Your task to perform on an android device: Go to ESPN.com Image 0: 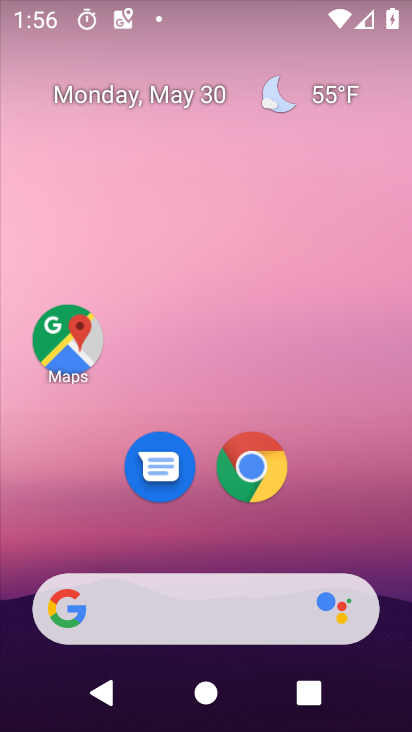
Step 0: drag from (218, 730) to (370, 531)
Your task to perform on an android device: Go to ESPN.com Image 1: 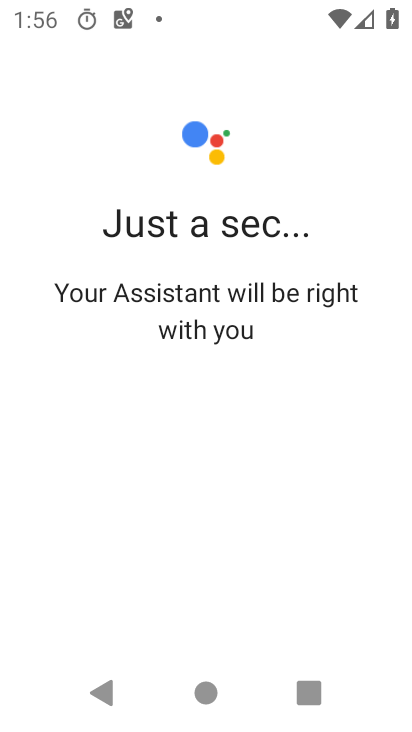
Step 1: press back button
Your task to perform on an android device: Go to ESPN.com Image 2: 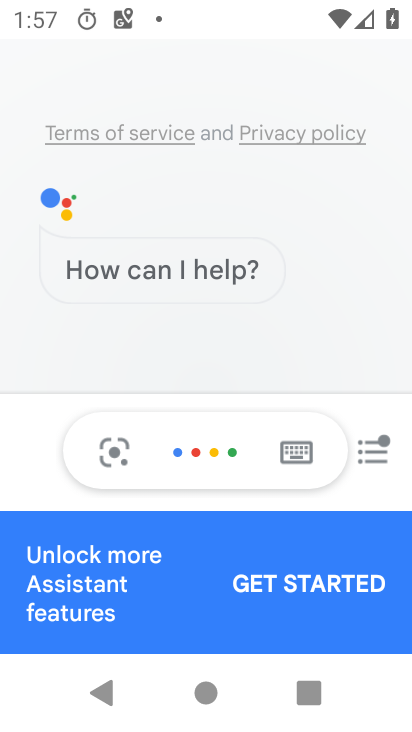
Step 2: press back button
Your task to perform on an android device: Go to ESPN.com Image 3: 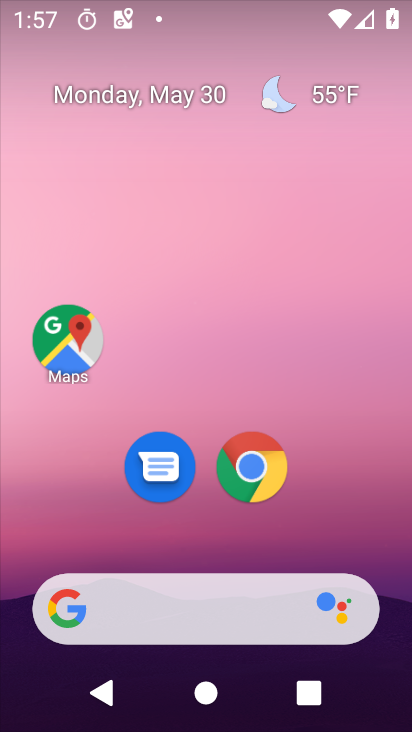
Step 3: click (240, 471)
Your task to perform on an android device: Go to ESPN.com Image 4: 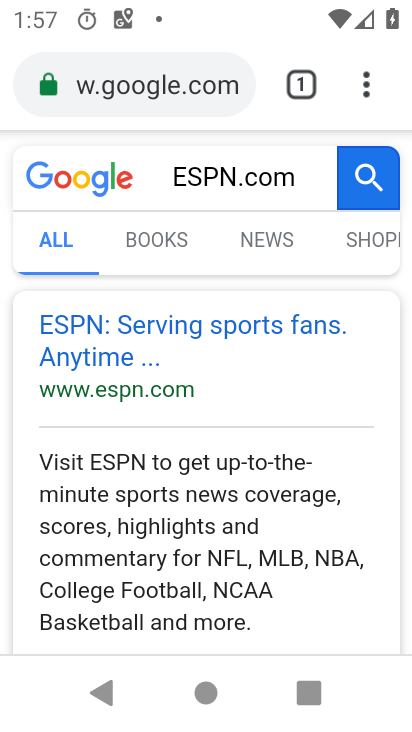
Step 4: click (245, 82)
Your task to perform on an android device: Go to ESPN.com Image 5: 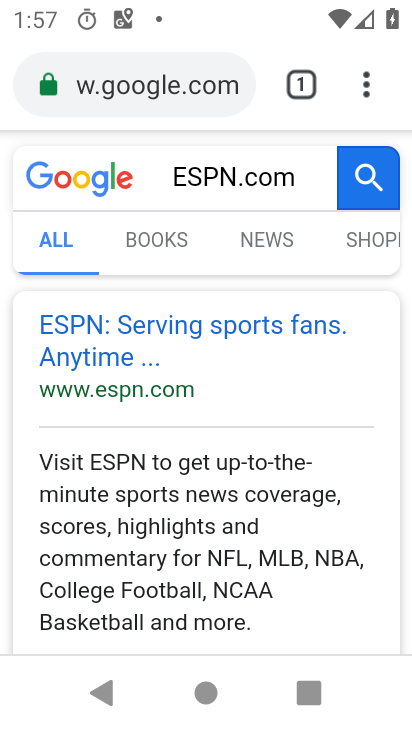
Step 5: click (235, 82)
Your task to perform on an android device: Go to ESPN.com Image 6: 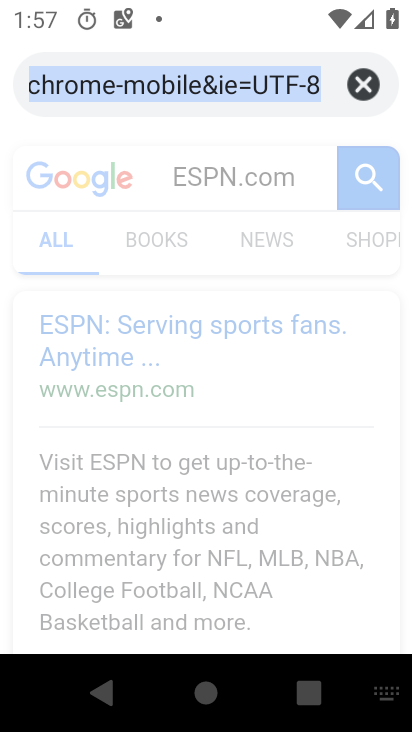
Step 6: click (359, 86)
Your task to perform on an android device: Go to ESPN.com Image 7: 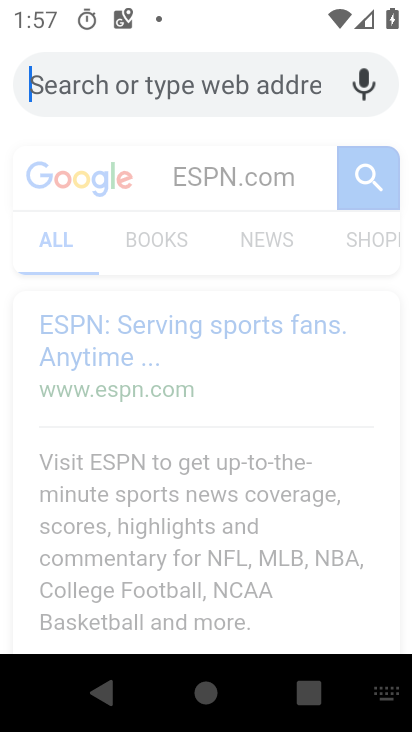
Step 7: type "ESPN.com"
Your task to perform on an android device: Go to ESPN.com Image 8: 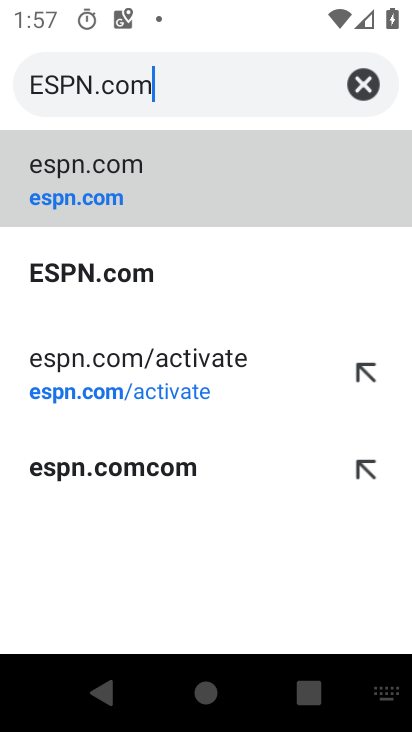
Step 8: click (73, 281)
Your task to perform on an android device: Go to ESPN.com Image 9: 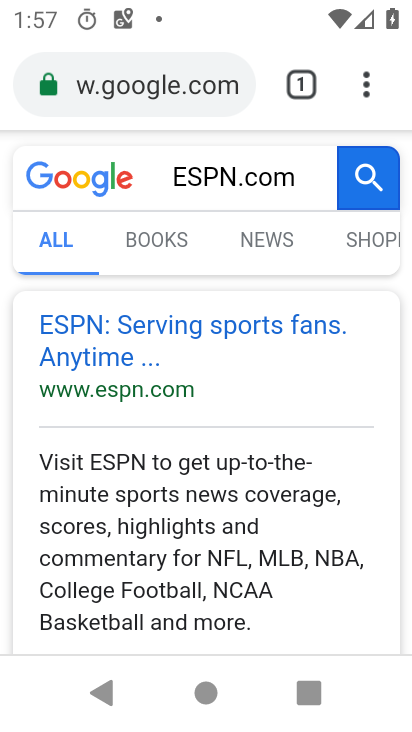
Step 9: task complete